Your task to perform on an android device: turn off javascript in the chrome app Image 0: 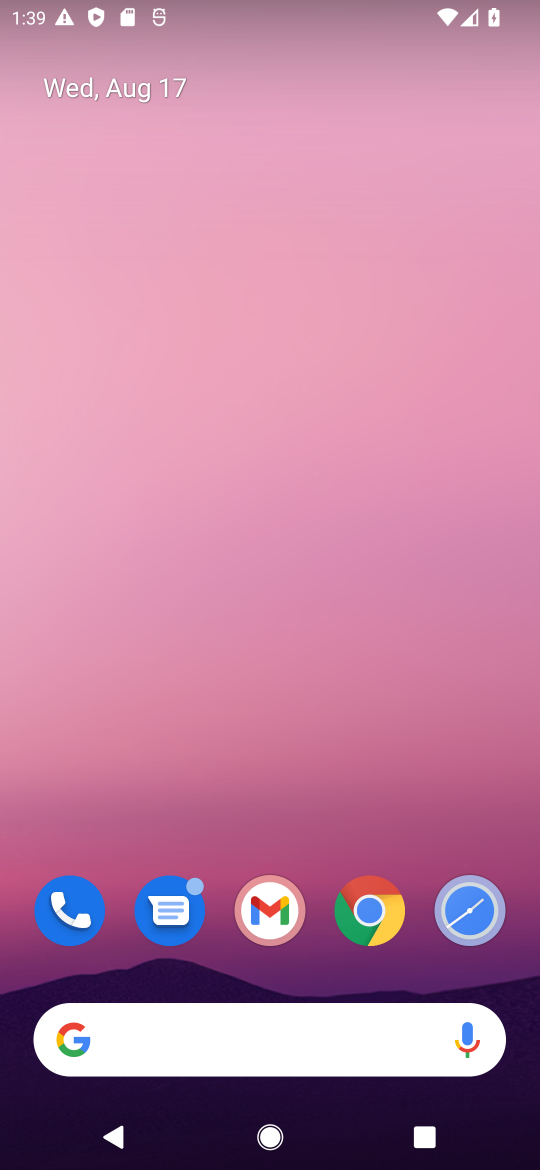
Step 0: click (385, 899)
Your task to perform on an android device: turn off javascript in the chrome app Image 1: 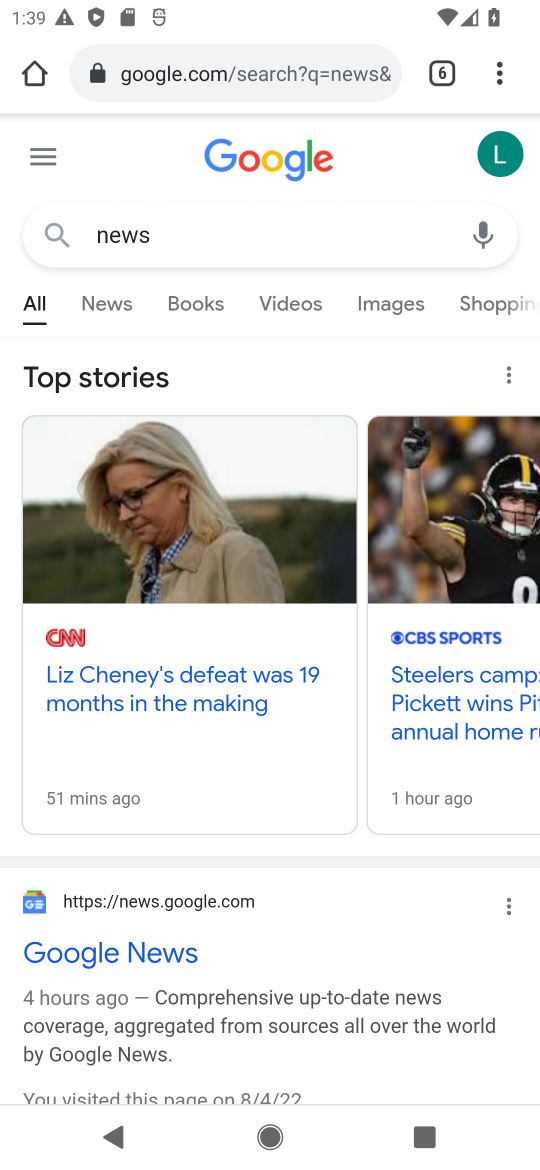
Step 1: drag from (505, 74) to (271, 934)
Your task to perform on an android device: turn off javascript in the chrome app Image 2: 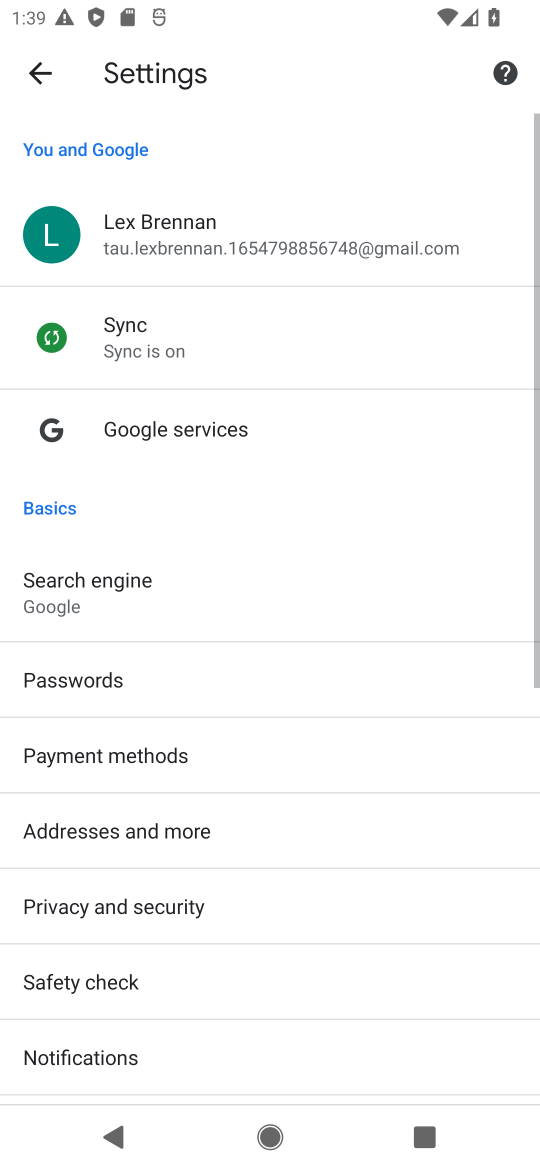
Step 2: drag from (135, 1046) to (343, 290)
Your task to perform on an android device: turn off javascript in the chrome app Image 3: 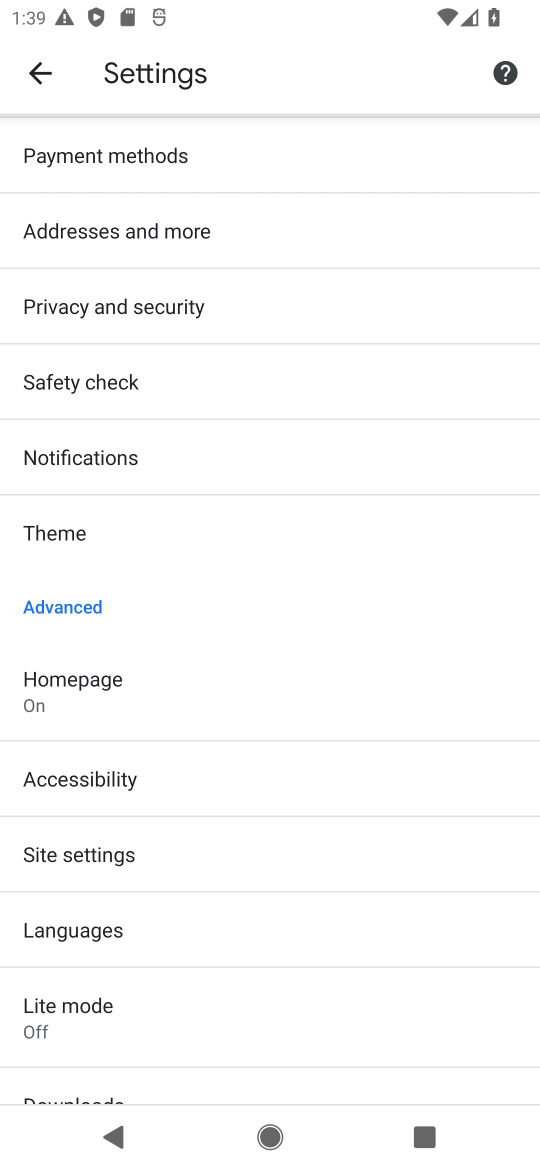
Step 3: click (129, 862)
Your task to perform on an android device: turn off javascript in the chrome app Image 4: 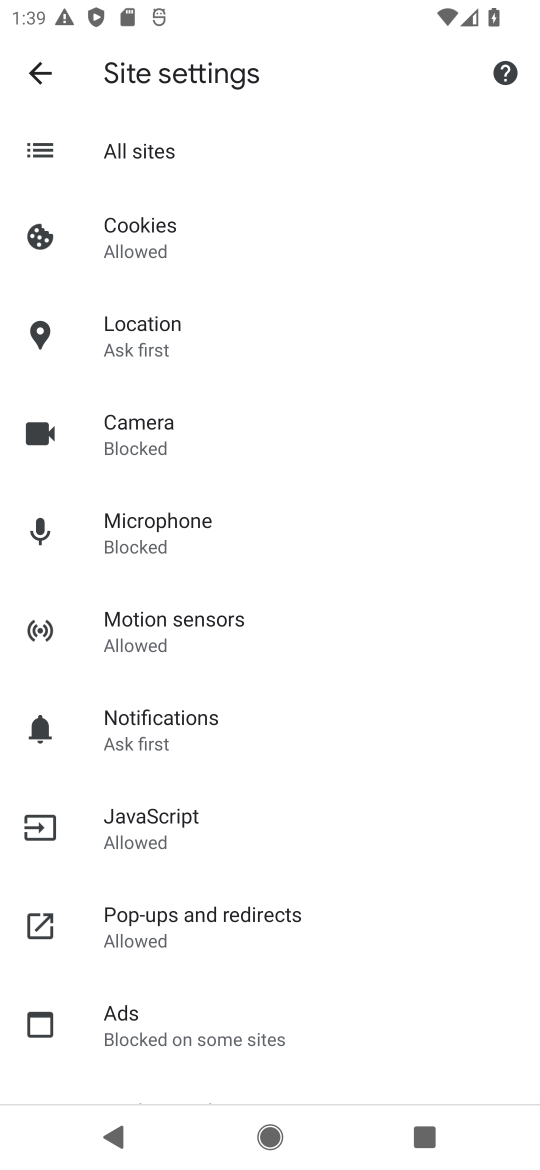
Step 4: click (132, 821)
Your task to perform on an android device: turn off javascript in the chrome app Image 5: 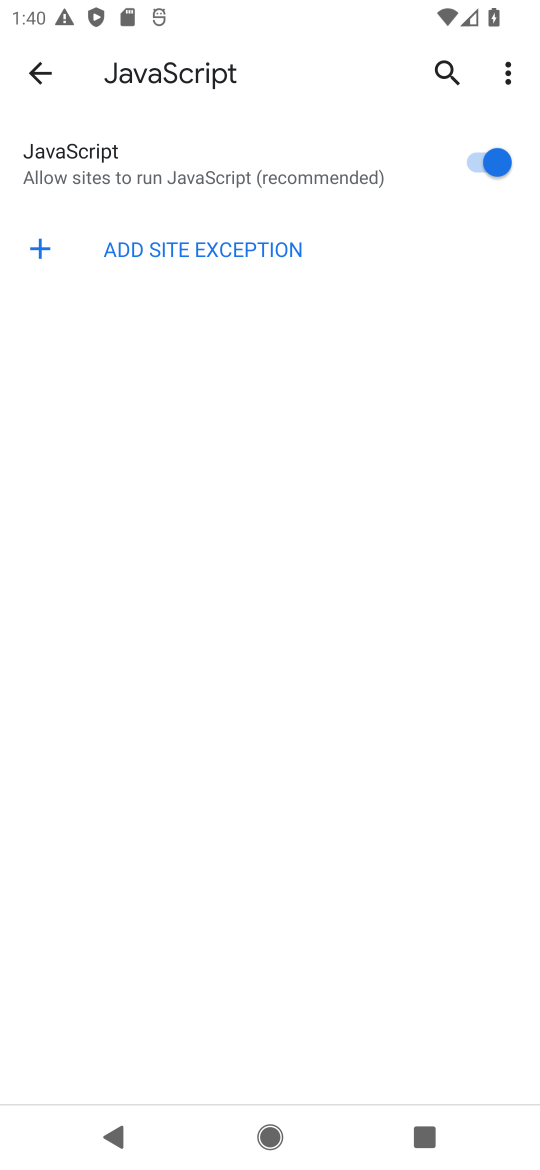
Step 5: click (484, 169)
Your task to perform on an android device: turn off javascript in the chrome app Image 6: 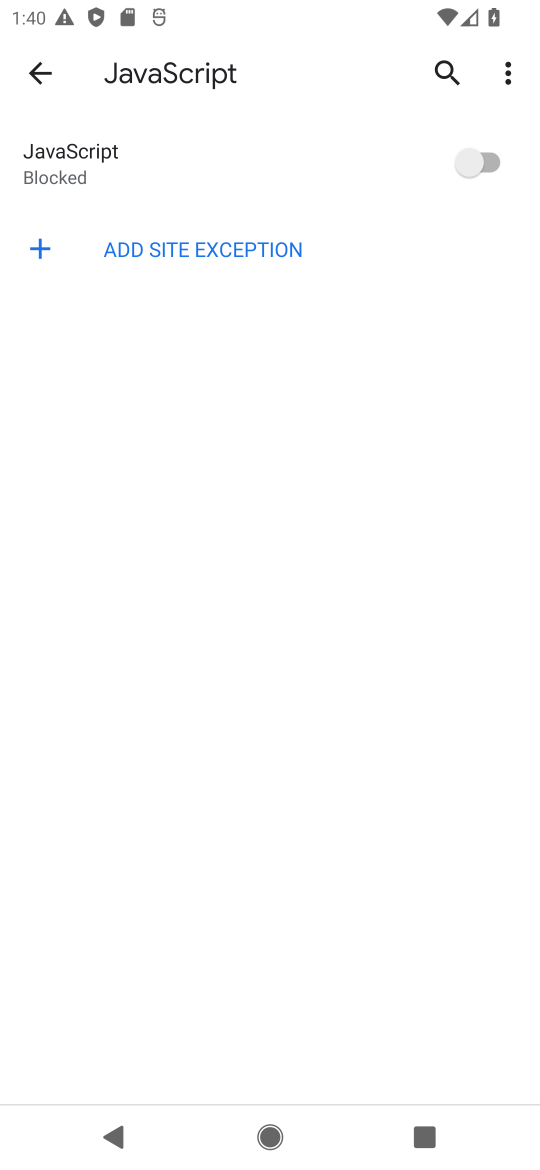
Step 6: task complete